Your task to perform on an android device: Open Youtube and go to "Your channel" Image 0: 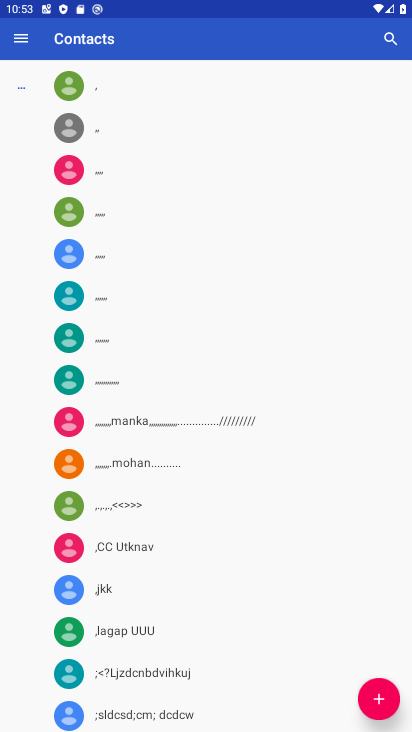
Step 0: press home button
Your task to perform on an android device: Open Youtube and go to "Your channel" Image 1: 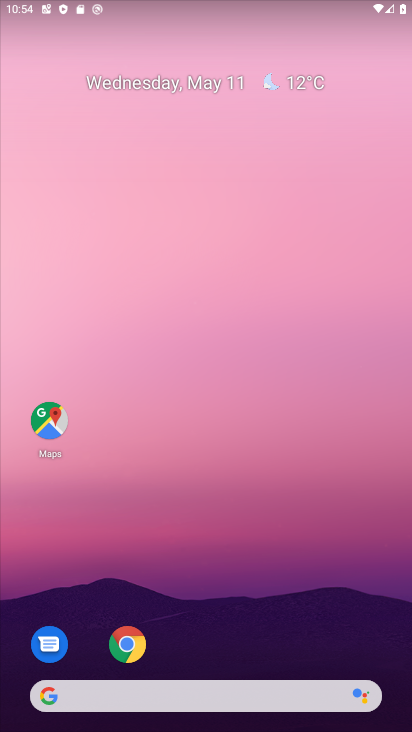
Step 1: drag from (334, 626) to (255, 143)
Your task to perform on an android device: Open Youtube and go to "Your channel" Image 2: 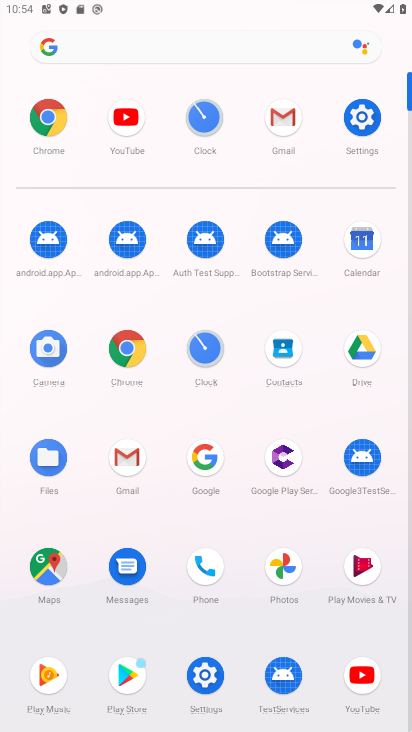
Step 2: click (370, 666)
Your task to perform on an android device: Open Youtube and go to "Your channel" Image 3: 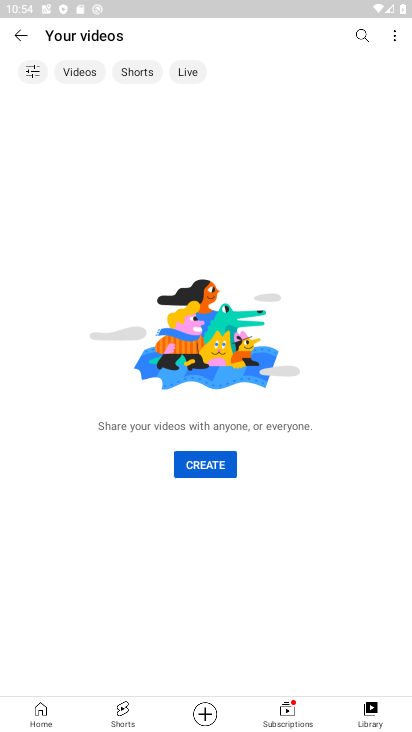
Step 3: click (369, 704)
Your task to perform on an android device: Open Youtube and go to "Your channel" Image 4: 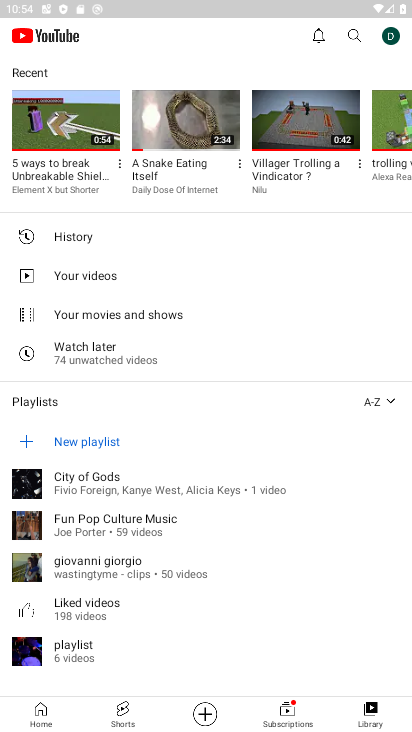
Step 4: click (392, 36)
Your task to perform on an android device: Open Youtube and go to "Your channel" Image 5: 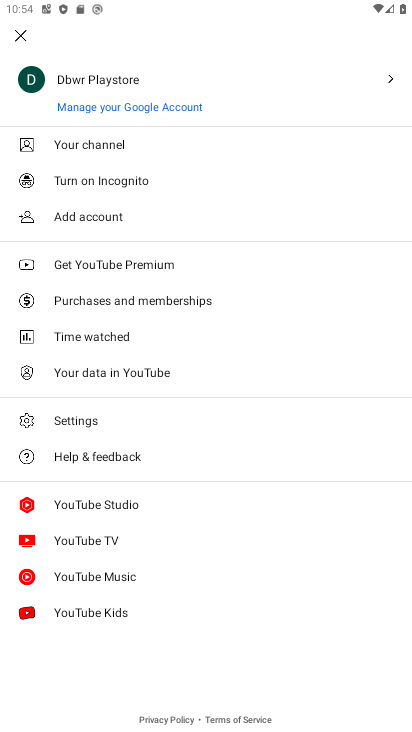
Step 5: click (135, 149)
Your task to perform on an android device: Open Youtube and go to "Your channel" Image 6: 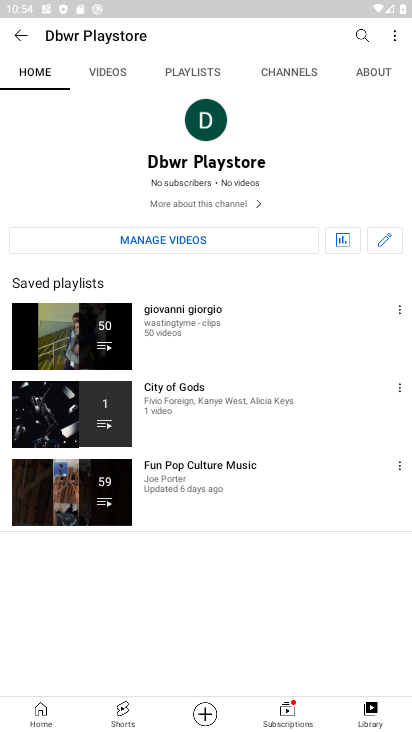
Step 6: task complete